Your task to perform on an android device: What's the weather? Image 0: 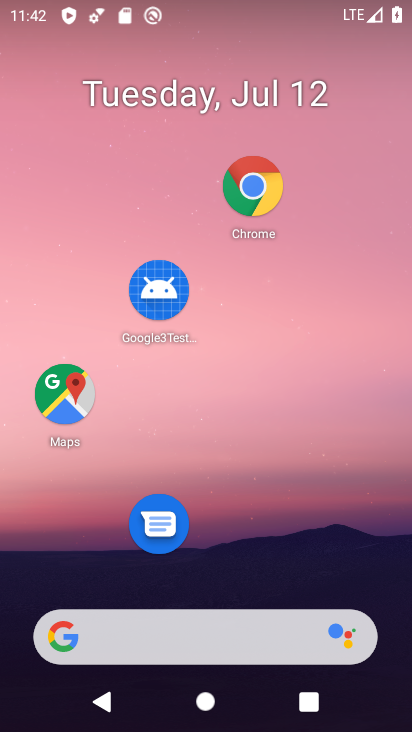
Step 0: click (199, 639)
Your task to perform on an android device: What's the weather? Image 1: 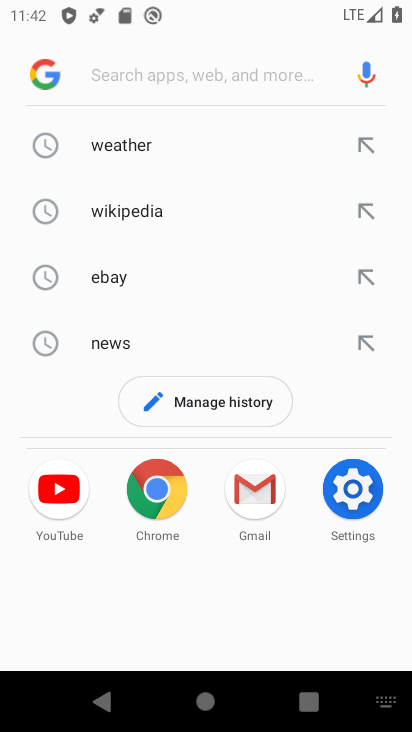
Step 1: click (116, 155)
Your task to perform on an android device: What's the weather? Image 2: 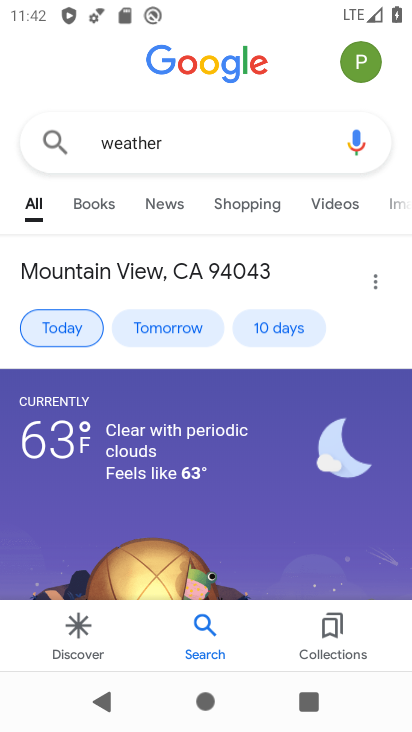
Step 2: task complete